Your task to perform on an android device: star an email in the gmail app Image 0: 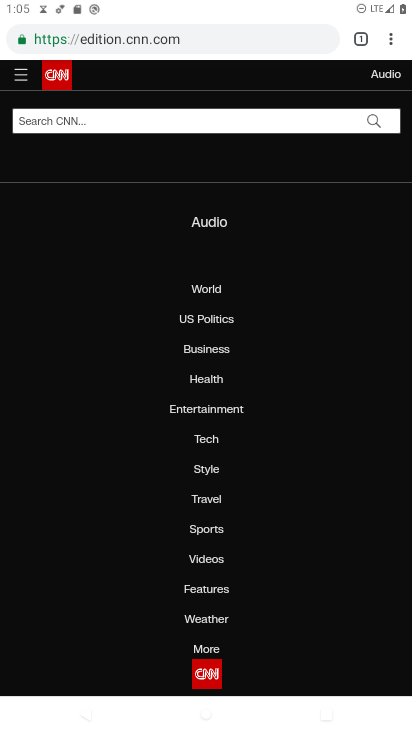
Step 0: press home button
Your task to perform on an android device: star an email in the gmail app Image 1: 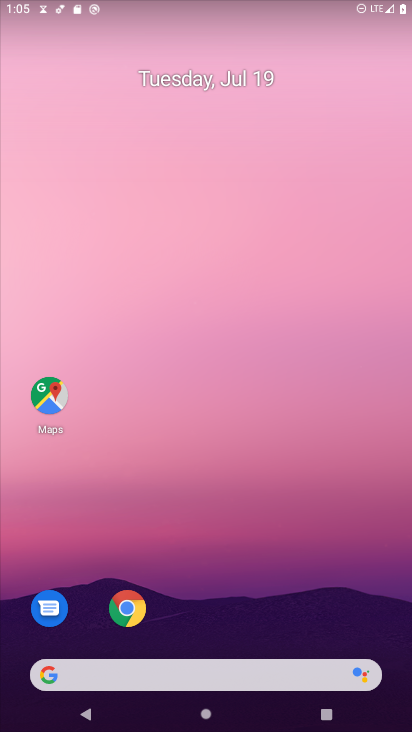
Step 1: drag from (194, 640) to (280, 45)
Your task to perform on an android device: star an email in the gmail app Image 2: 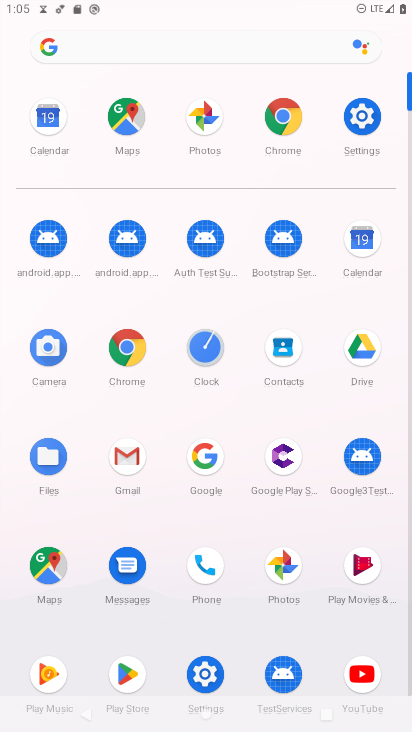
Step 2: click (132, 455)
Your task to perform on an android device: star an email in the gmail app Image 3: 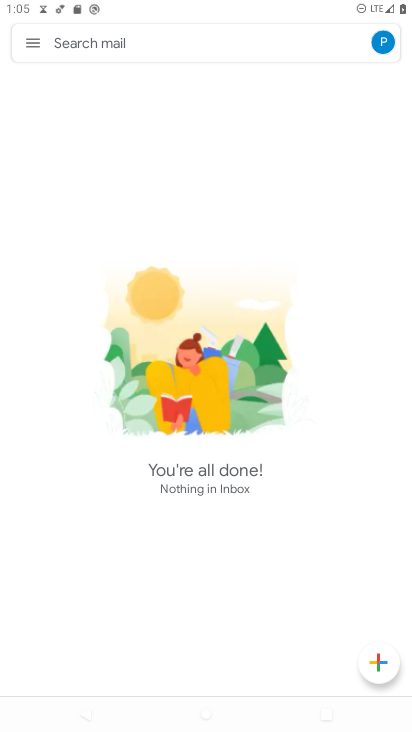
Step 3: click (26, 29)
Your task to perform on an android device: star an email in the gmail app Image 4: 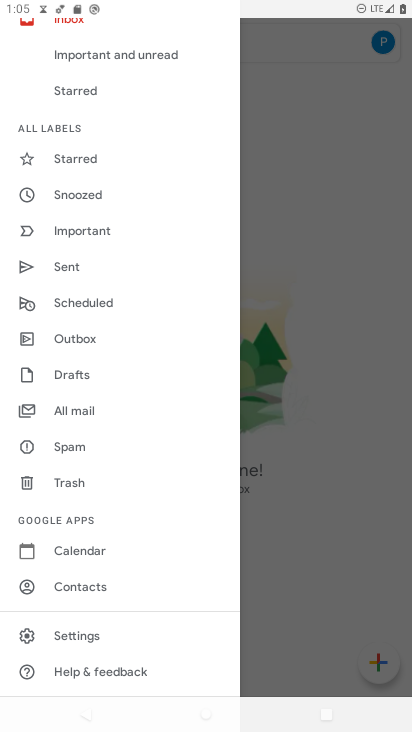
Step 4: click (76, 156)
Your task to perform on an android device: star an email in the gmail app Image 5: 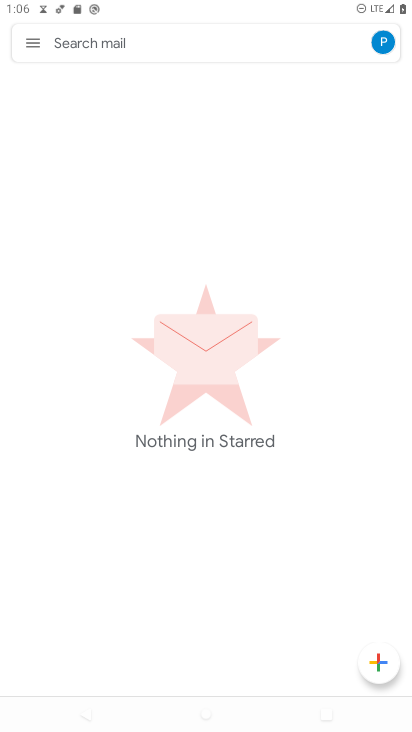
Step 5: task complete